Your task to perform on an android device: check google app version Image 0: 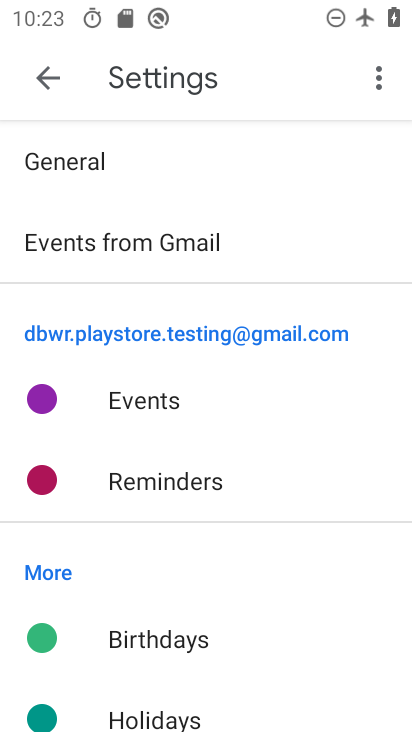
Step 0: press home button
Your task to perform on an android device: check google app version Image 1: 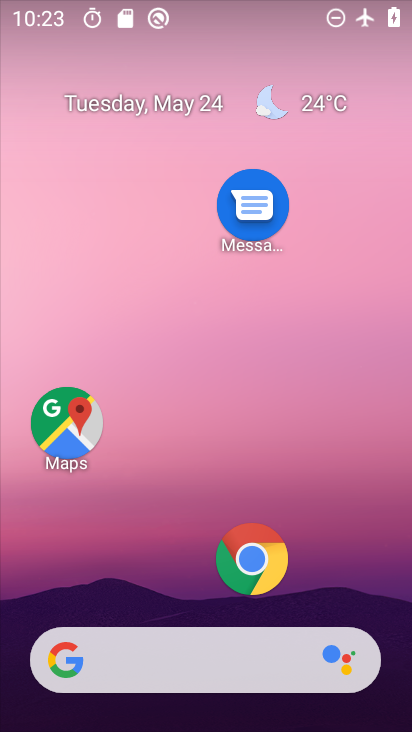
Step 1: drag from (155, 568) to (153, 198)
Your task to perform on an android device: check google app version Image 2: 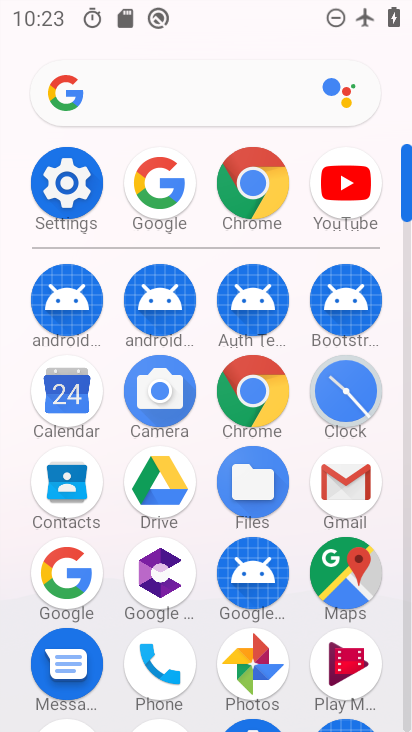
Step 2: click (153, 198)
Your task to perform on an android device: check google app version Image 3: 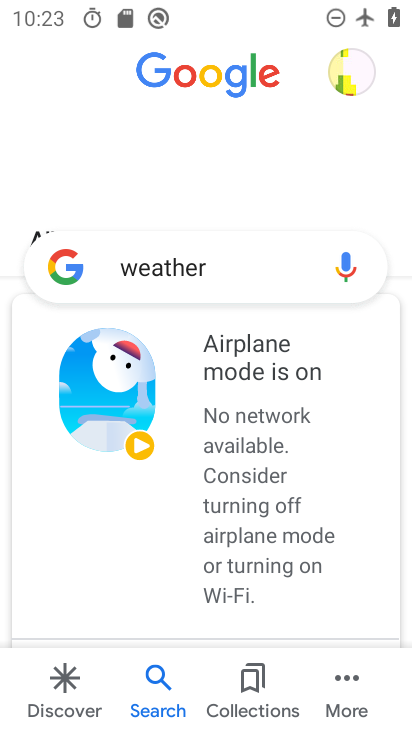
Step 3: click (341, 681)
Your task to perform on an android device: check google app version Image 4: 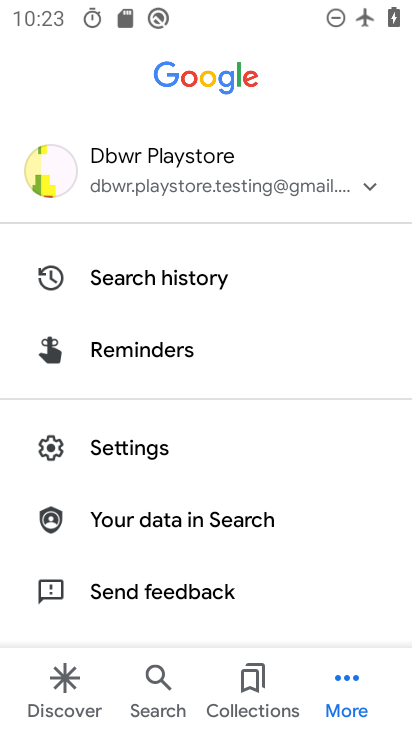
Step 4: click (83, 452)
Your task to perform on an android device: check google app version Image 5: 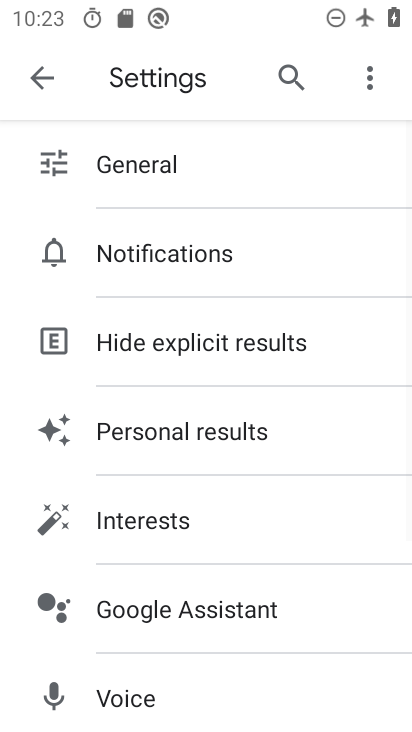
Step 5: drag from (161, 655) to (181, 376)
Your task to perform on an android device: check google app version Image 6: 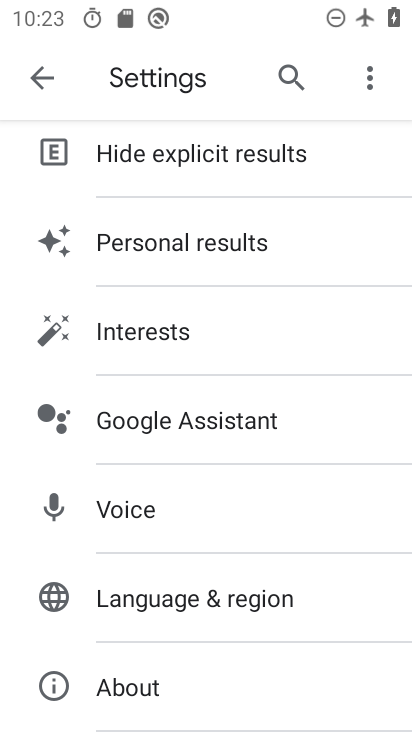
Step 6: click (174, 694)
Your task to perform on an android device: check google app version Image 7: 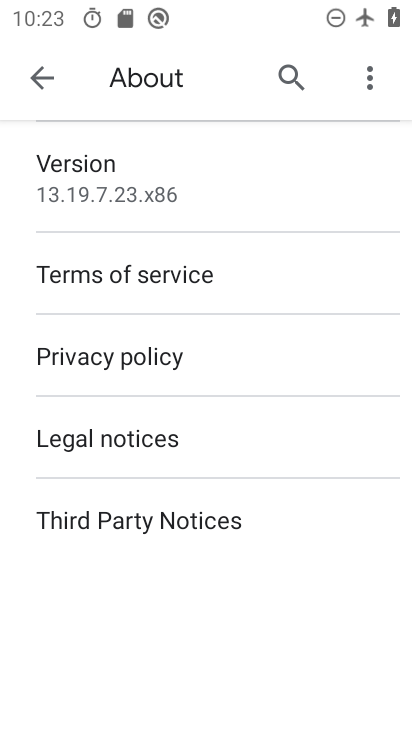
Step 7: click (102, 204)
Your task to perform on an android device: check google app version Image 8: 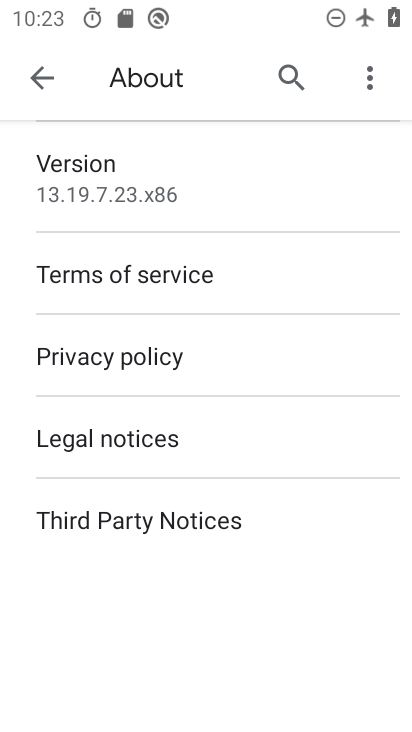
Step 8: task complete